Your task to perform on an android device: check the backup settings in the google photos Image 0: 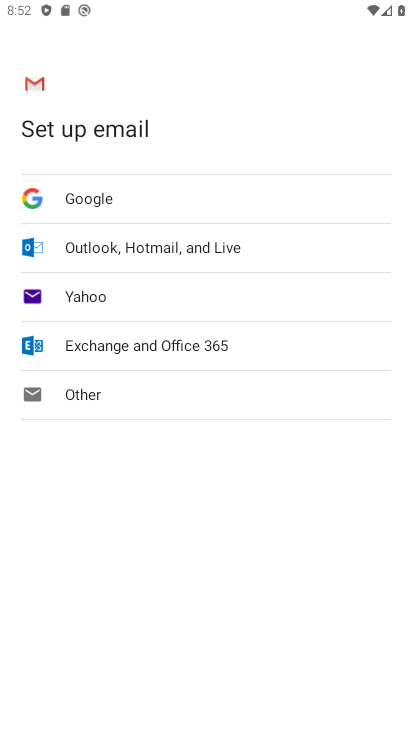
Step 0: press home button
Your task to perform on an android device: check the backup settings in the google photos Image 1: 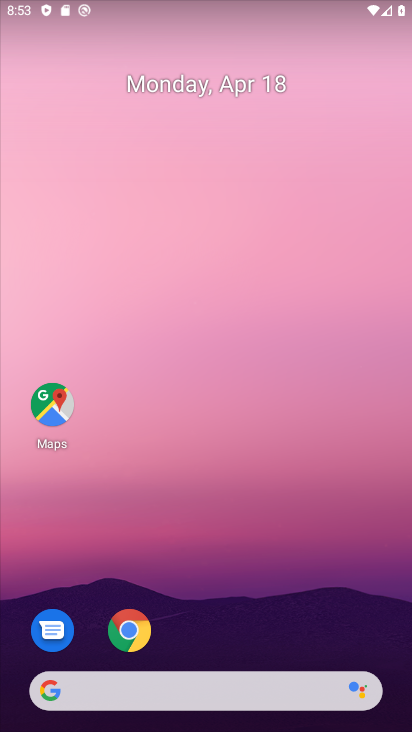
Step 1: drag from (279, 623) to (266, 85)
Your task to perform on an android device: check the backup settings in the google photos Image 2: 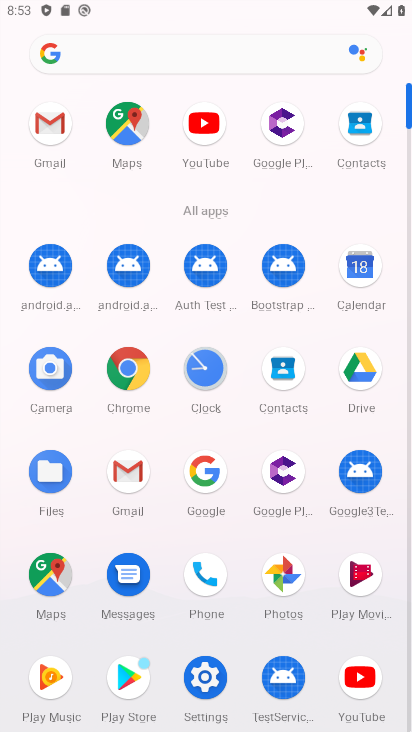
Step 2: click (282, 575)
Your task to perform on an android device: check the backup settings in the google photos Image 3: 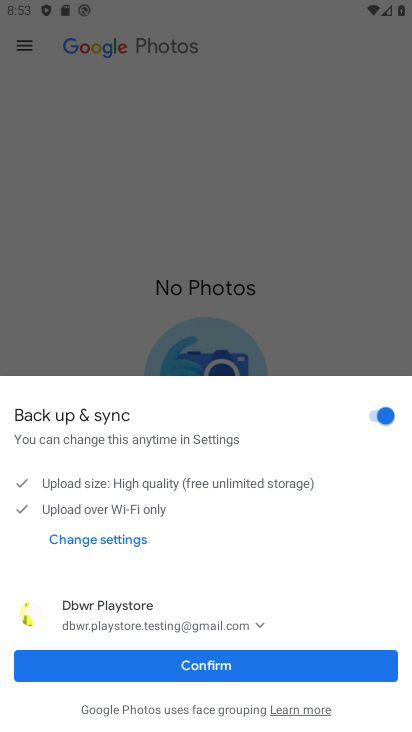
Step 3: click (26, 42)
Your task to perform on an android device: check the backup settings in the google photos Image 4: 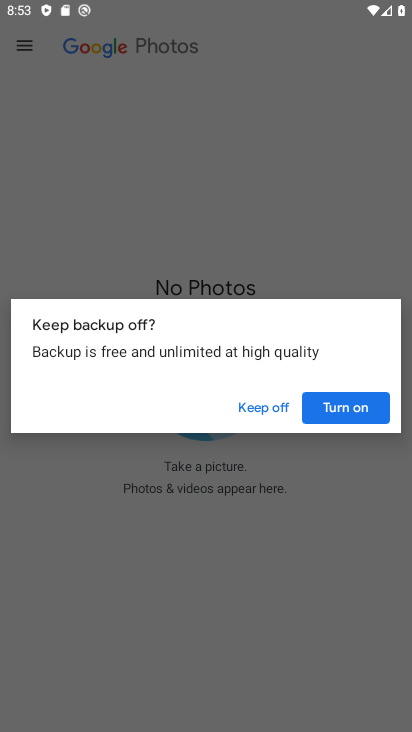
Step 4: click (343, 407)
Your task to perform on an android device: check the backup settings in the google photos Image 5: 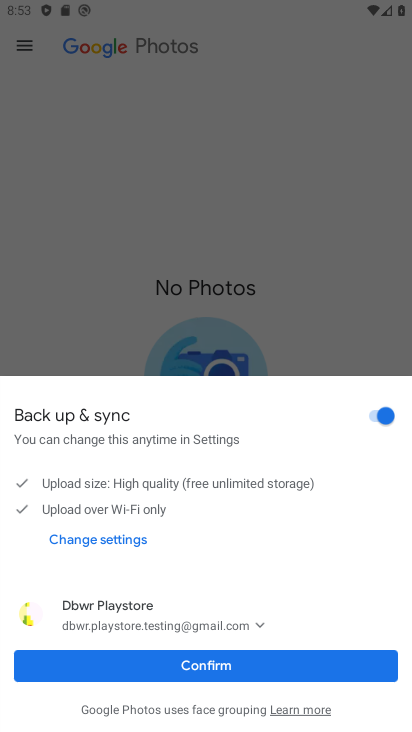
Step 5: click (297, 665)
Your task to perform on an android device: check the backup settings in the google photos Image 6: 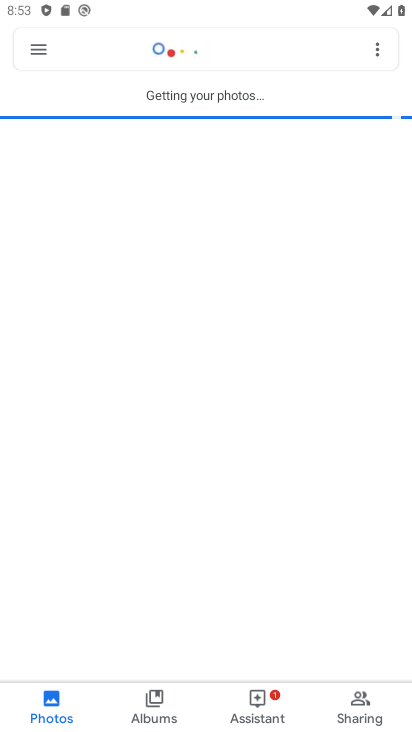
Step 6: click (34, 42)
Your task to perform on an android device: check the backup settings in the google photos Image 7: 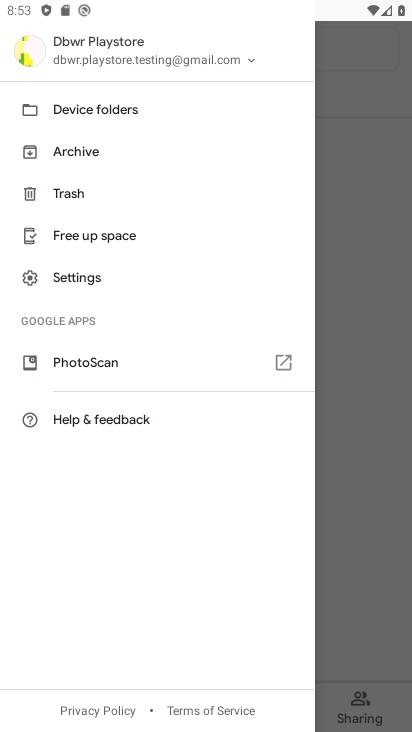
Step 7: click (97, 274)
Your task to perform on an android device: check the backup settings in the google photos Image 8: 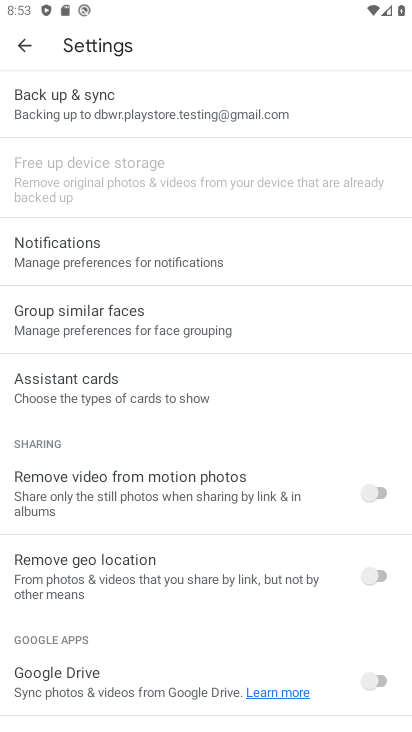
Step 8: click (203, 101)
Your task to perform on an android device: check the backup settings in the google photos Image 9: 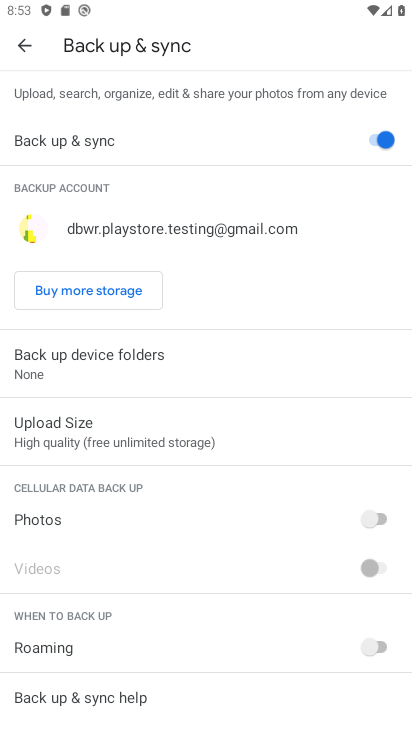
Step 9: task complete